Your task to perform on an android device: Go to sound settings Image 0: 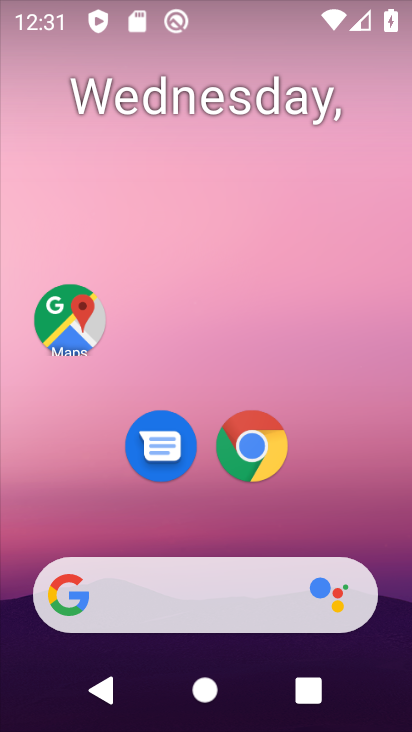
Step 0: drag from (293, 470) to (256, 373)
Your task to perform on an android device: Go to sound settings Image 1: 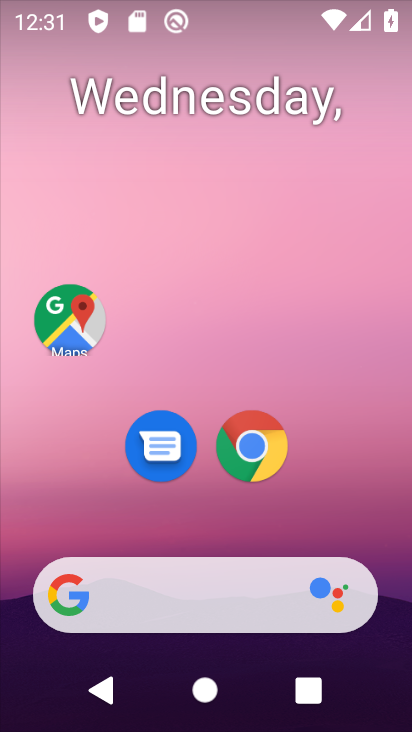
Step 1: drag from (341, 649) to (209, 295)
Your task to perform on an android device: Go to sound settings Image 2: 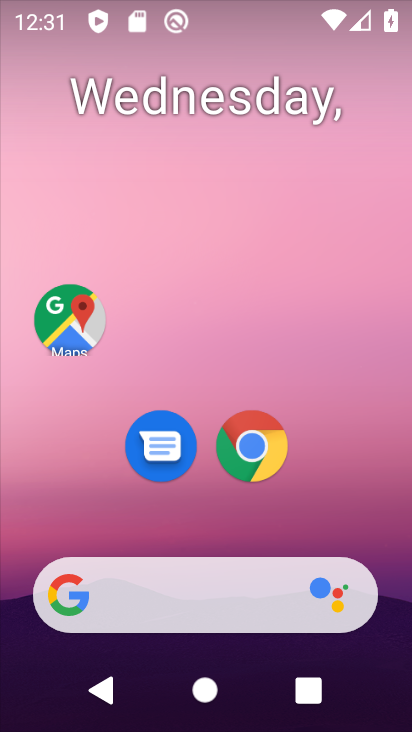
Step 2: drag from (322, 490) to (235, 74)
Your task to perform on an android device: Go to sound settings Image 3: 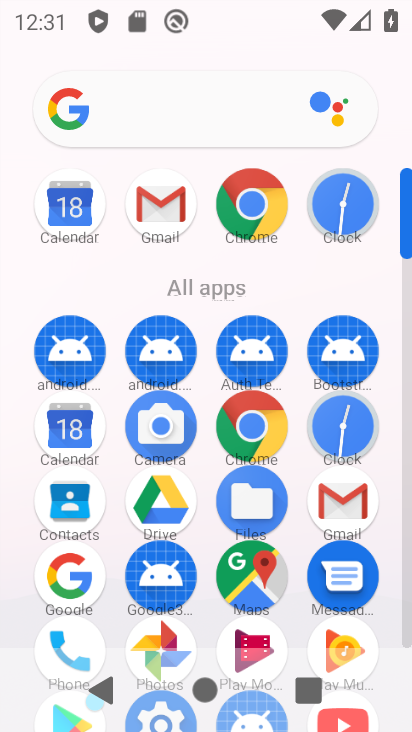
Step 3: drag from (277, 520) to (250, 237)
Your task to perform on an android device: Go to sound settings Image 4: 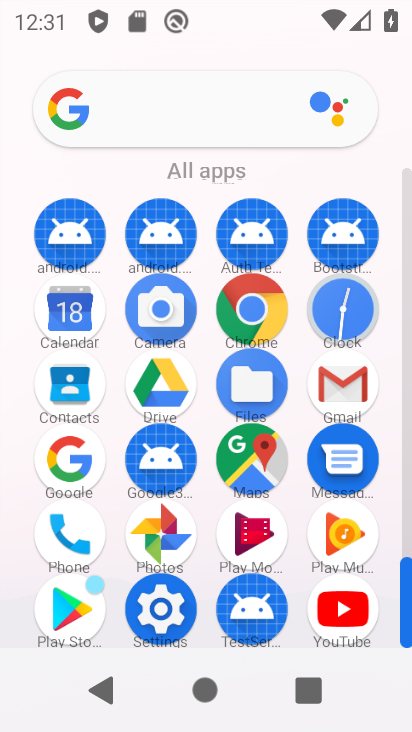
Step 4: click (147, 600)
Your task to perform on an android device: Go to sound settings Image 5: 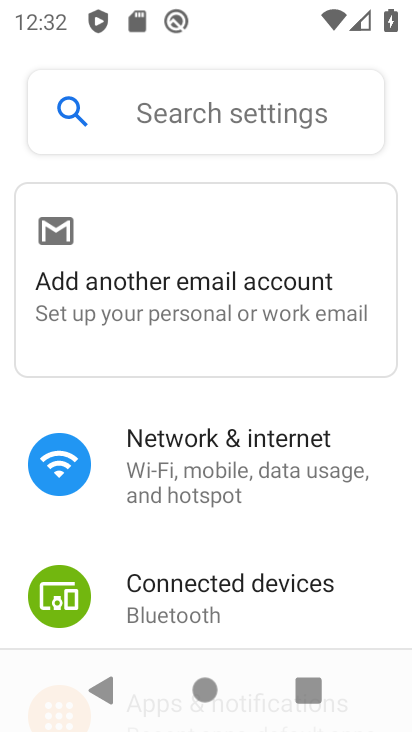
Step 5: click (250, 203)
Your task to perform on an android device: Go to sound settings Image 6: 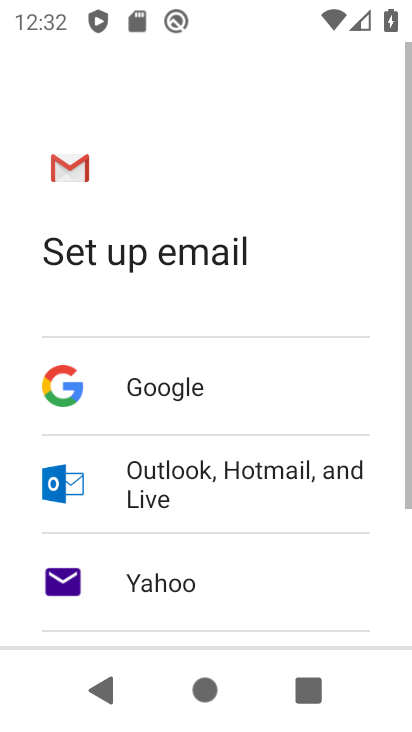
Step 6: drag from (271, 551) to (279, 126)
Your task to perform on an android device: Go to sound settings Image 7: 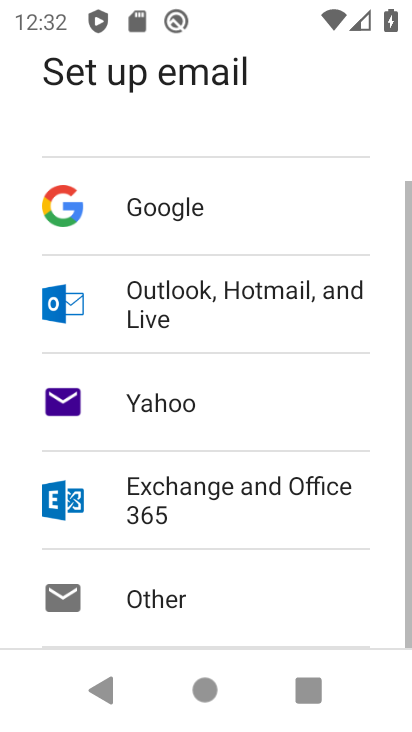
Step 7: drag from (276, 481) to (210, 126)
Your task to perform on an android device: Go to sound settings Image 8: 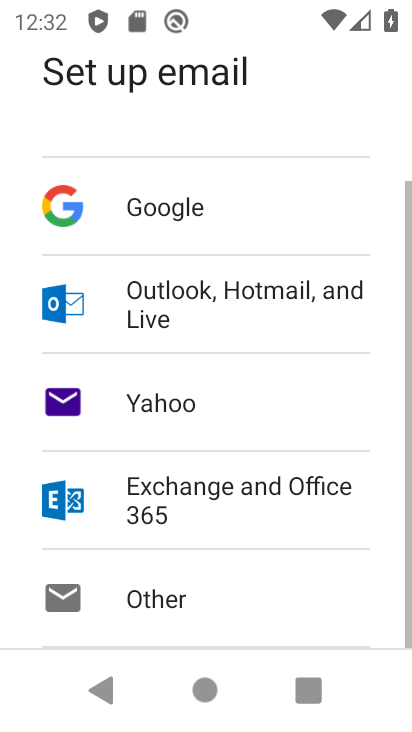
Step 8: press back button
Your task to perform on an android device: Go to sound settings Image 9: 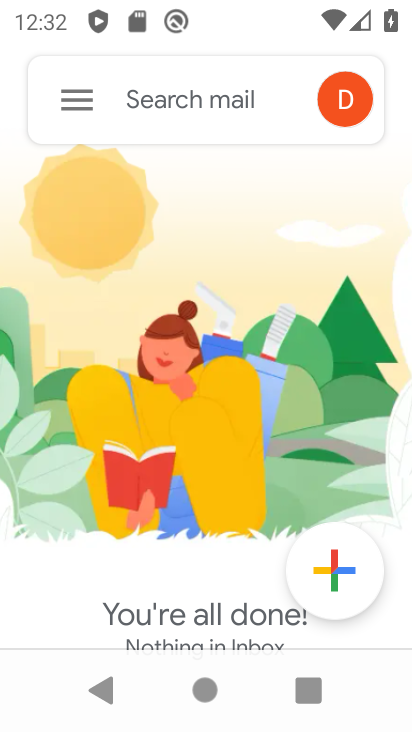
Step 9: press home button
Your task to perform on an android device: Go to sound settings Image 10: 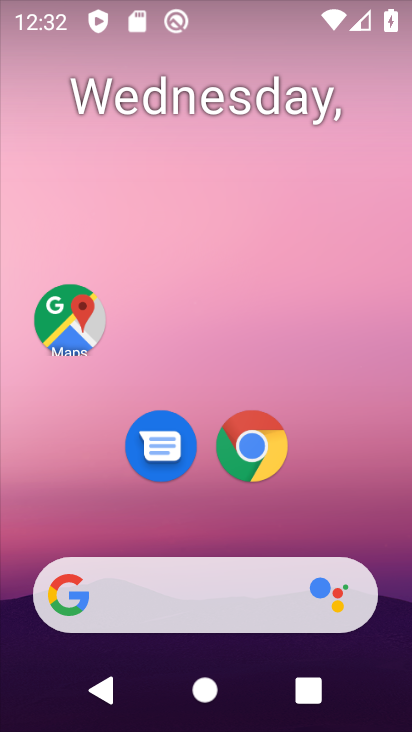
Step 10: drag from (316, 497) to (271, 8)
Your task to perform on an android device: Go to sound settings Image 11: 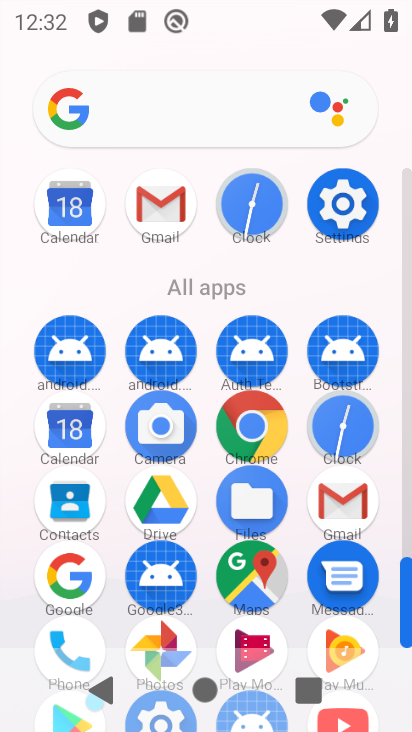
Step 11: click (335, 206)
Your task to perform on an android device: Go to sound settings Image 12: 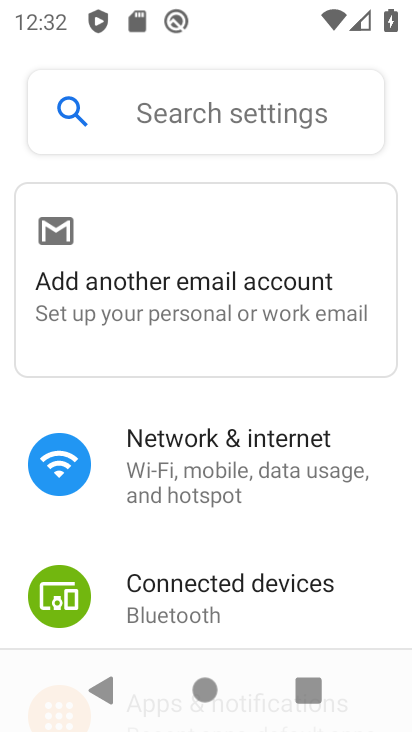
Step 12: drag from (222, 121) to (216, 86)
Your task to perform on an android device: Go to sound settings Image 13: 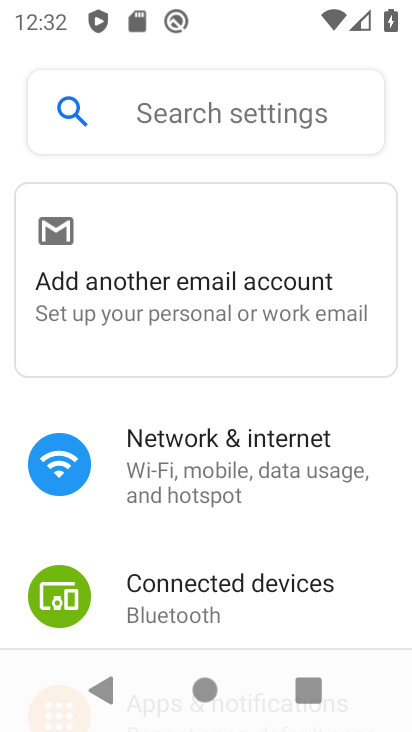
Step 13: drag from (234, 543) to (235, 170)
Your task to perform on an android device: Go to sound settings Image 14: 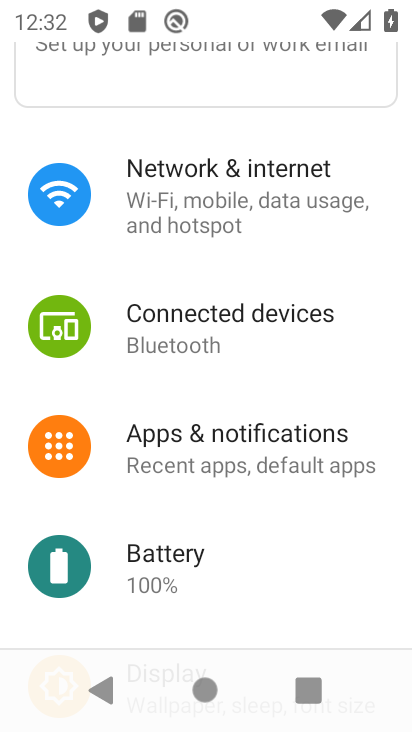
Step 14: drag from (264, 506) to (252, 119)
Your task to perform on an android device: Go to sound settings Image 15: 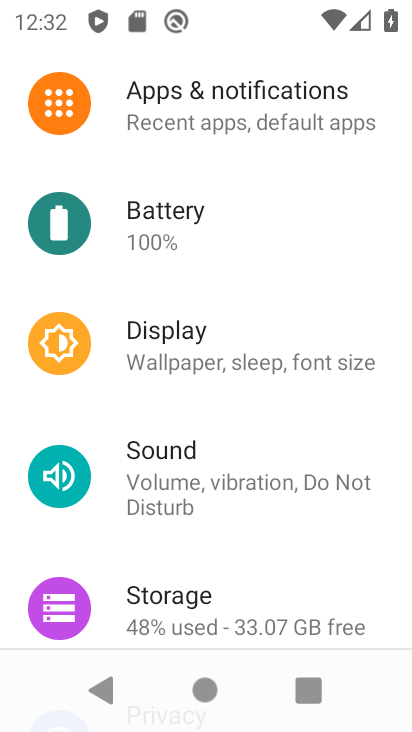
Step 15: click (180, 469)
Your task to perform on an android device: Go to sound settings Image 16: 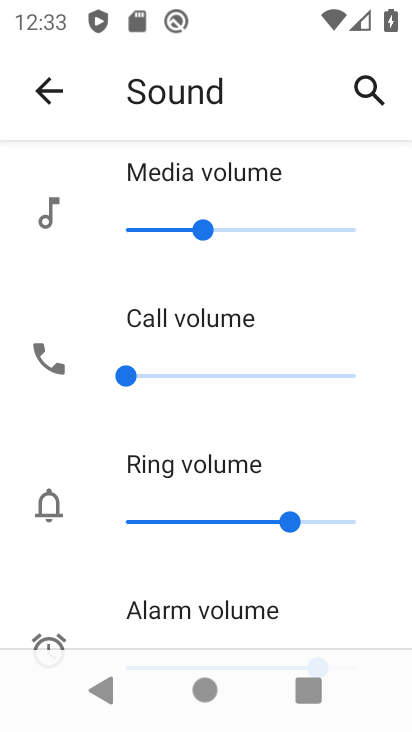
Step 16: task complete